Your task to perform on an android device: add a contact Image 0: 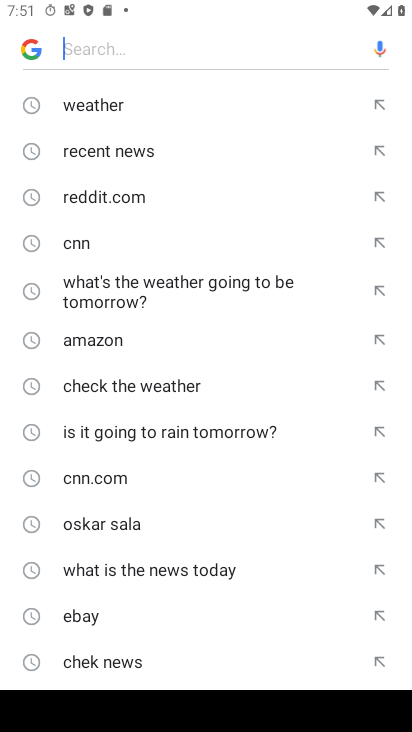
Step 0: press home button
Your task to perform on an android device: add a contact Image 1: 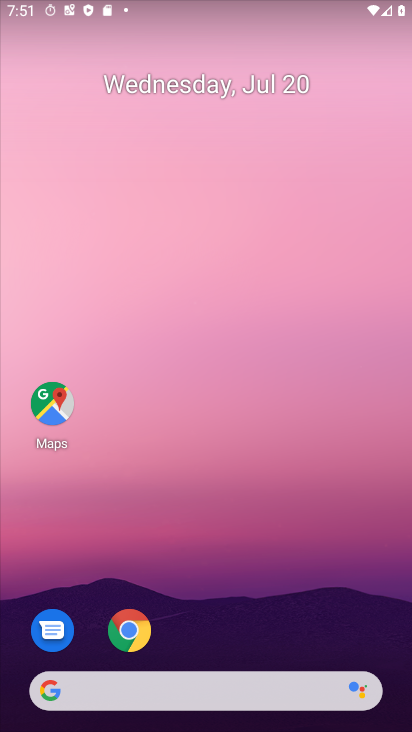
Step 1: drag from (235, 679) to (280, 1)
Your task to perform on an android device: add a contact Image 2: 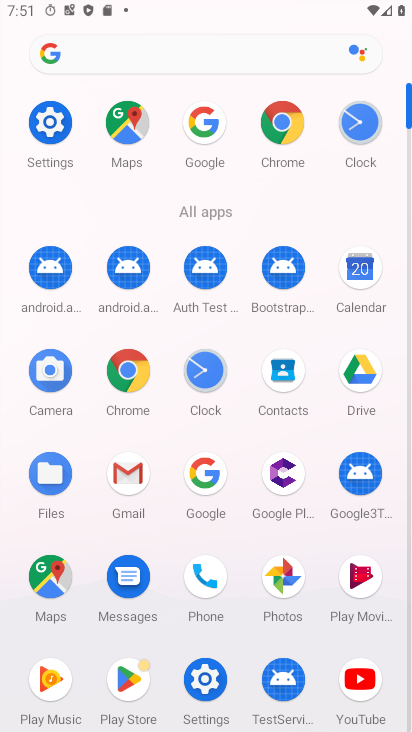
Step 2: click (273, 377)
Your task to perform on an android device: add a contact Image 3: 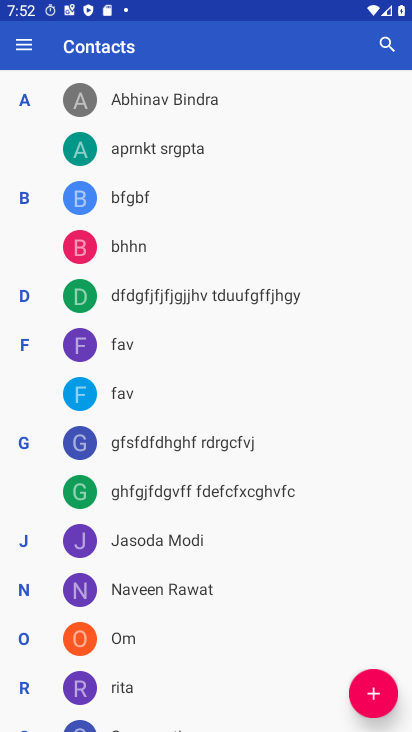
Step 3: click (376, 688)
Your task to perform on an android device: add a contact Image 4: 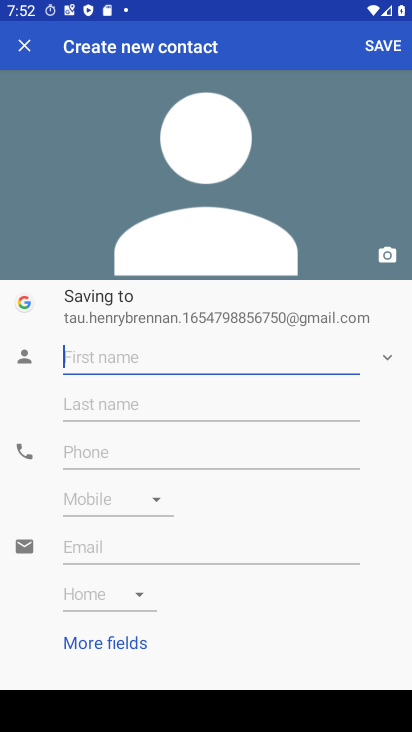
Step 4: type "jhdfgx ."
Your task to perform on an android device: add a contact Image 5: 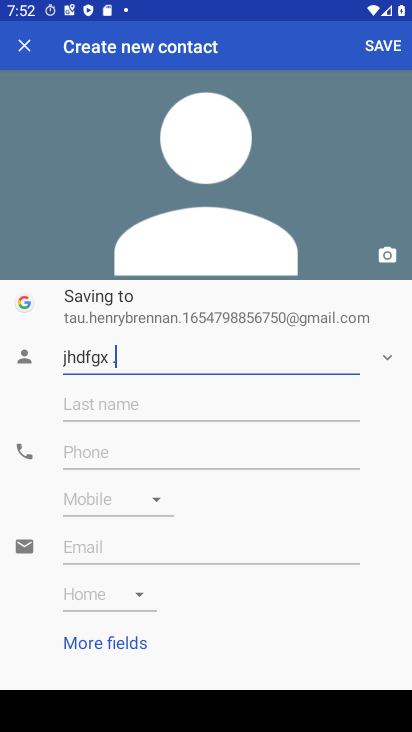
Step 5: click (140, 468)
Your task to perform on an android device: add a contact Image 6: 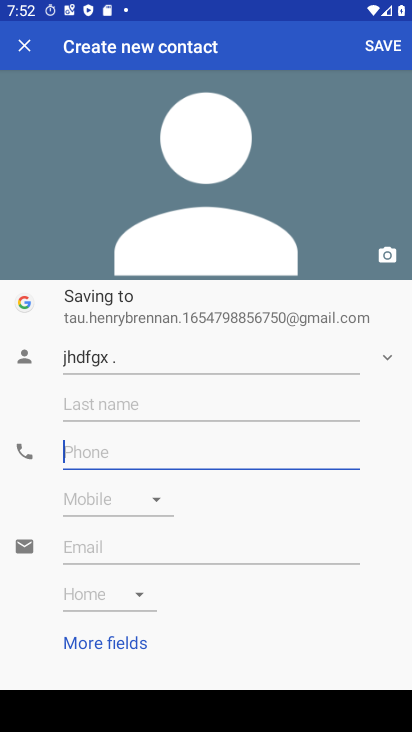
Step 6: type "09876545678"
Your task to perform on an android device: add a contact Image 7: 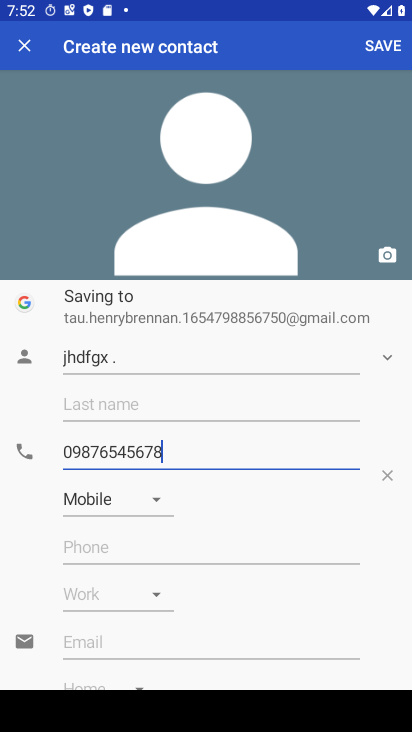
Step 7: click (389, 50)
Your task to perform on an android device: add a contact Image 8: 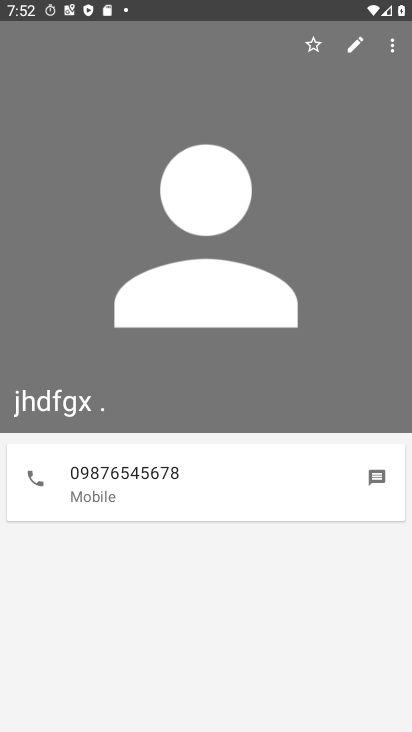
Step 8: task complete